Your task to perform on an android device: turn pop-ups off in chrome Image 0: 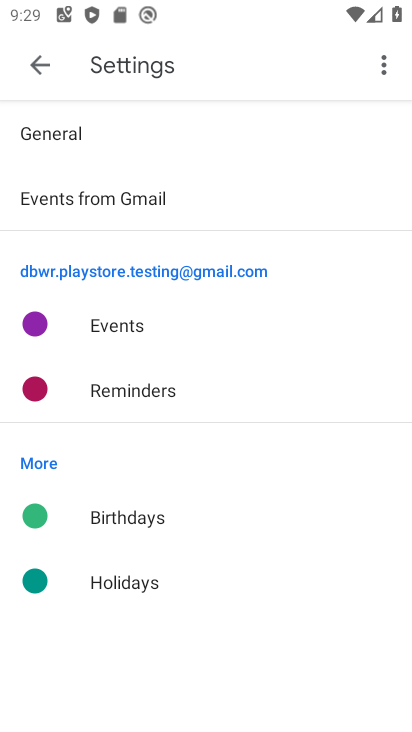
Step 0: press home button
Your task to perform on an android device: turn pop-ups off in chrome Image 1: 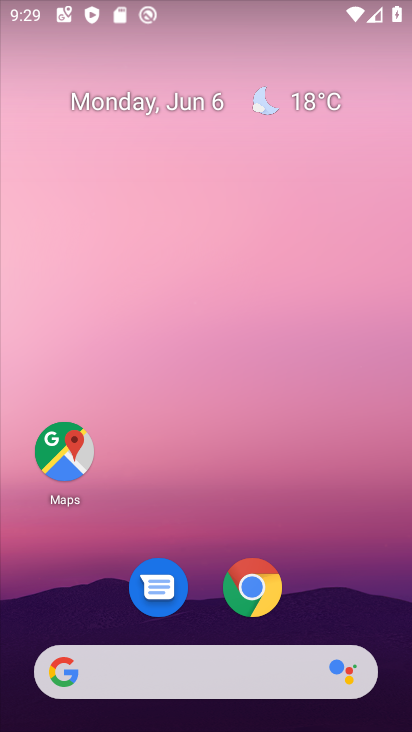
Step 1: click (253, 581)
Your task to perform on an android device: turn pop-ups off in chrome Image 2: 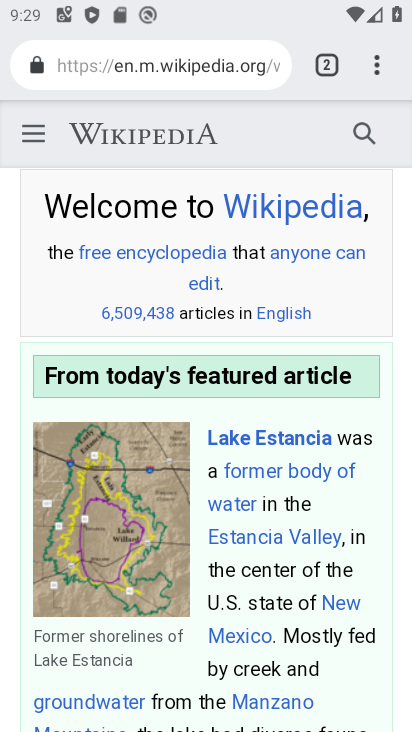
Step 2: click (385, 58)
Your task to perform on an android device: turn pop-ups off in chrome Image 3: 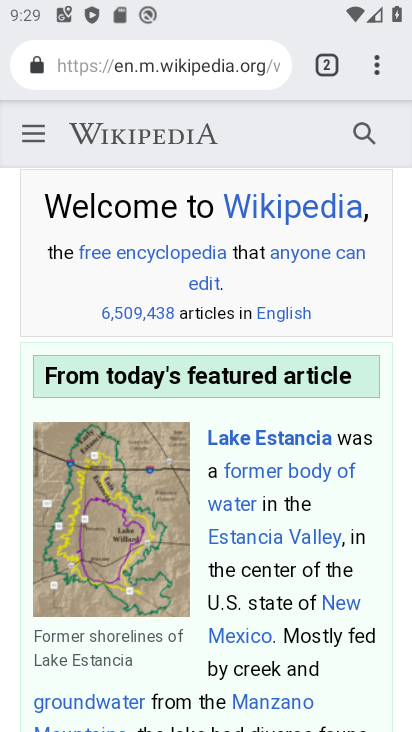
Step 3: drag from (375, 58) to (198, 645)
Your task to perform on an android device: turn pop-ups off in chrome Image 4: 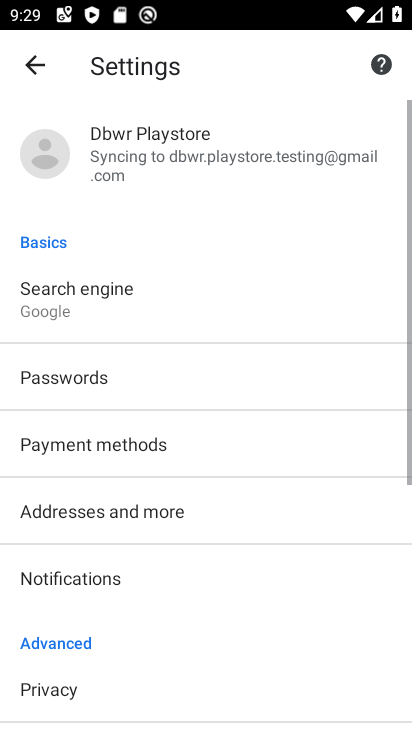
Step 4: drag from (201, 637) to (247, 96)
Your task to perform on an android device: turn pop-ups off in chrome Image 5: 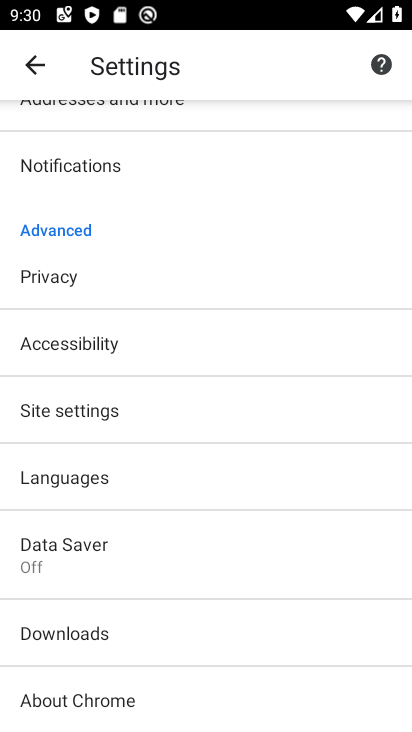
Step 5: click (122, 421)
Your task to perform on an android device: turn pop-ups off in chrome Image 6: 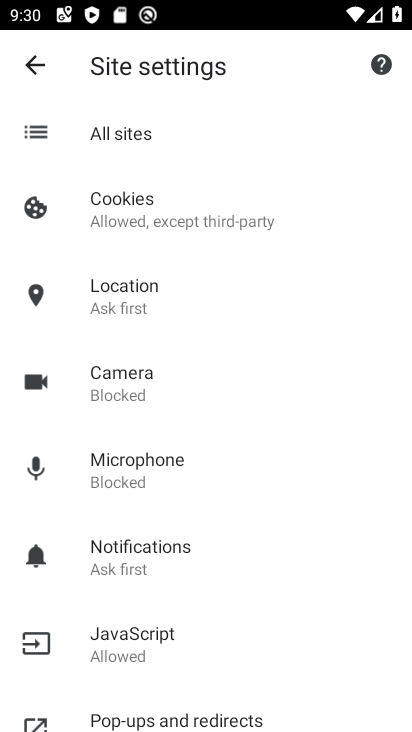
Step 6: click (122, 714)
Your task to perform on an android device: turn pop-ups off in chrome Image 7: 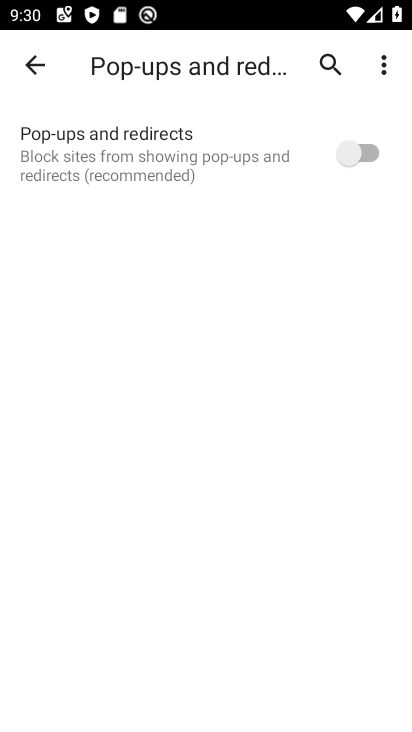
Step 7: click (344, 156)
Your task to perform on an android device: turn pop-ups off in chrome Image 8: 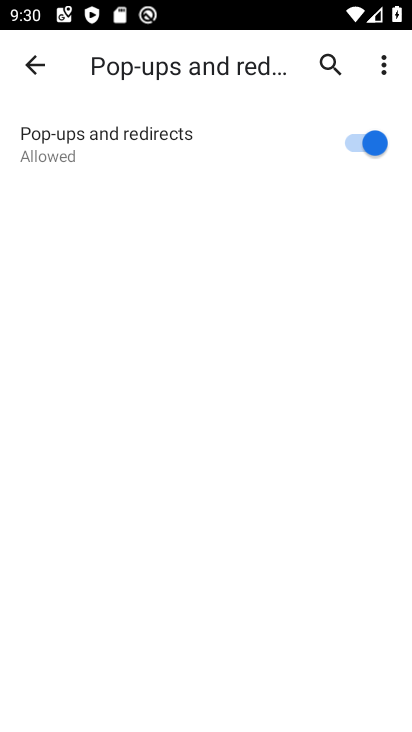
Step 8: click (373, 142)
Your task to perform on an android device: turn pop-ups off in chrome Image 9: 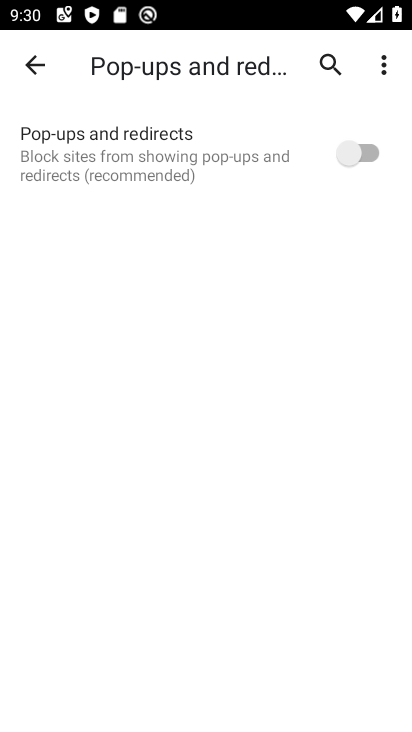
Step 9: task complete